Your task to perform on an android device: delete the emails in spam in the gmail app Image 0: 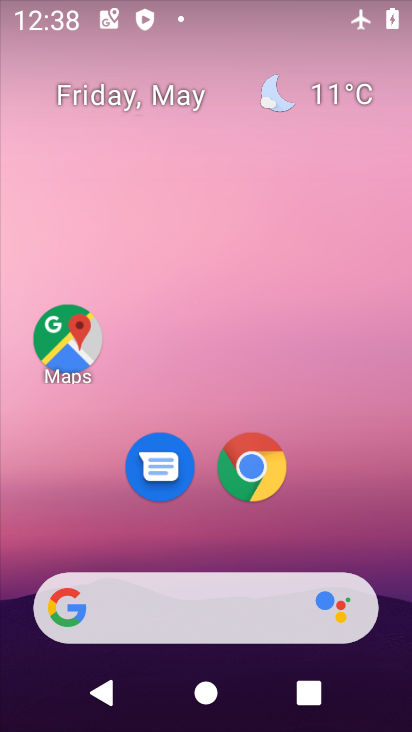
Step 0: drag from (349, 525) to (283, 153)
Your task to perform on an android device: delete the emails in spam in the gmail app Image 1: 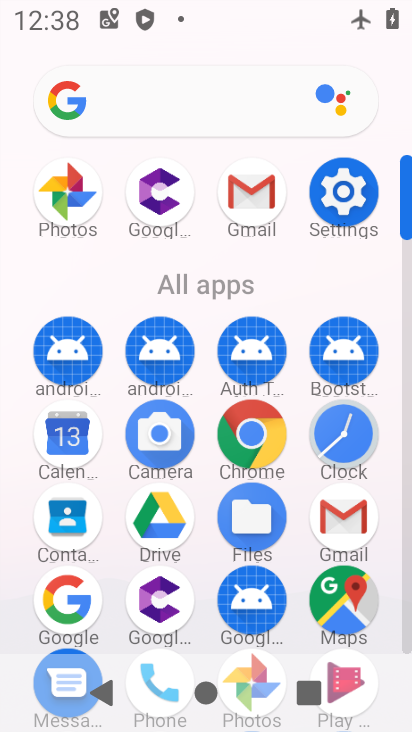
Step 1: click (353, 536)
Your task to perform on an android device: delete the emails in spam in the gmail app Image 2: 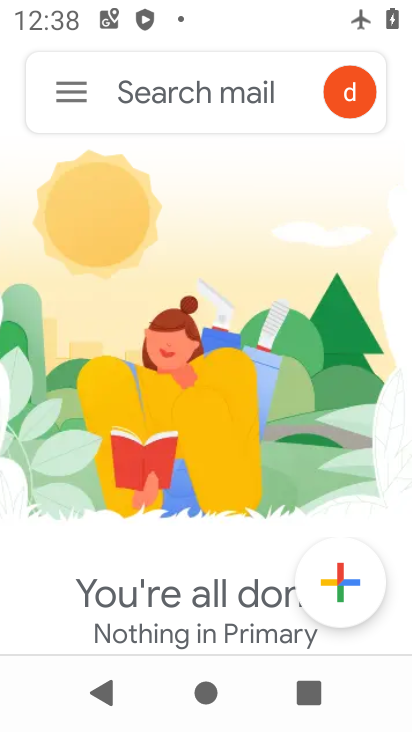
Step 2: click (67, 89)
Your task to perform on an android device: delete the emails in spam in the gmail app Image 3: 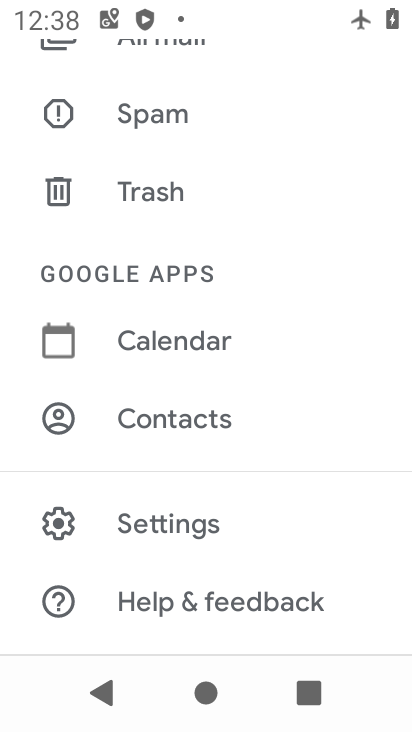
Step 3: drag from (250, 133) to (311, 416)
Your task to perform on an android device: delete the emails in spam in the gmail app Image 4: 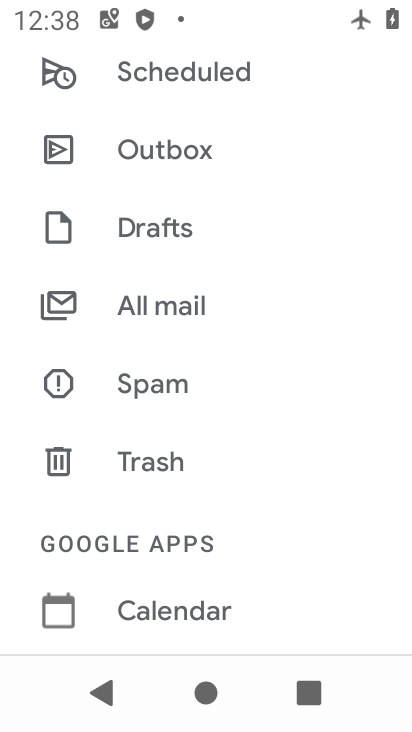
Step 4: click (171, 396)
Your task to perform on an android device: delete the emails in spam in the gmail app Image 5: 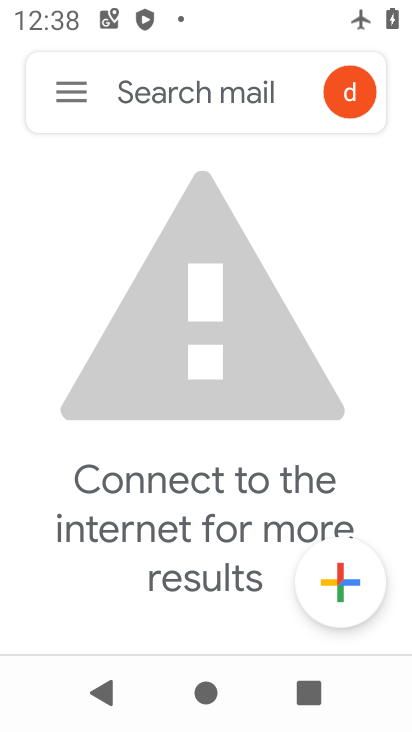
Step 5: click (70, 90)
Your task to perform on an android device: delete the emails in spam in the gmail app Image 6: 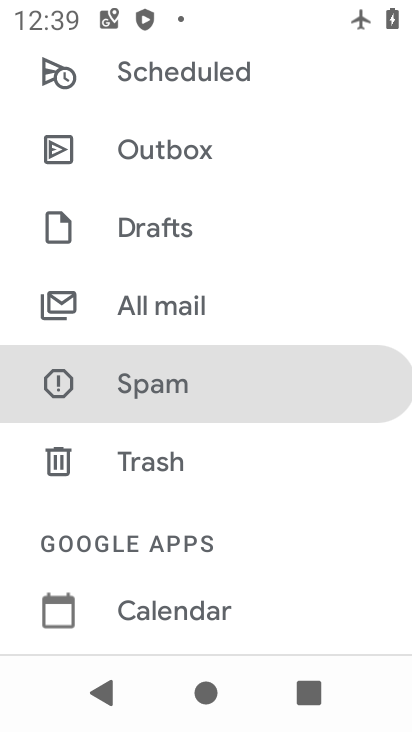
Step 6: click (171, 372)
Your task to perform on an android device: delete the emails in spam in the gmail app Image 7: 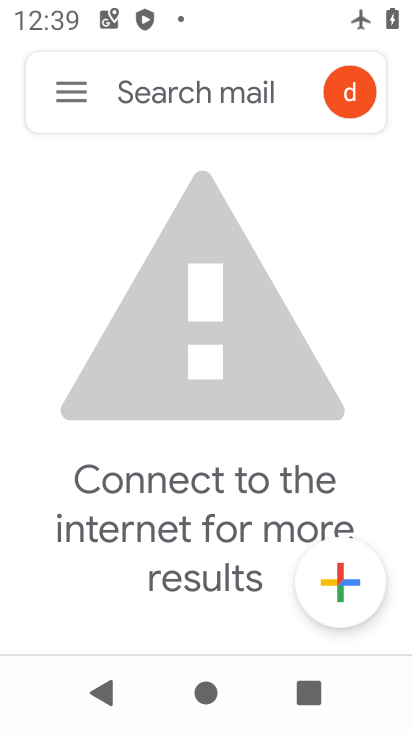
Step 7: task complete